Your task to perform on an android device: move an email to a new category in the gmail app Image 0: 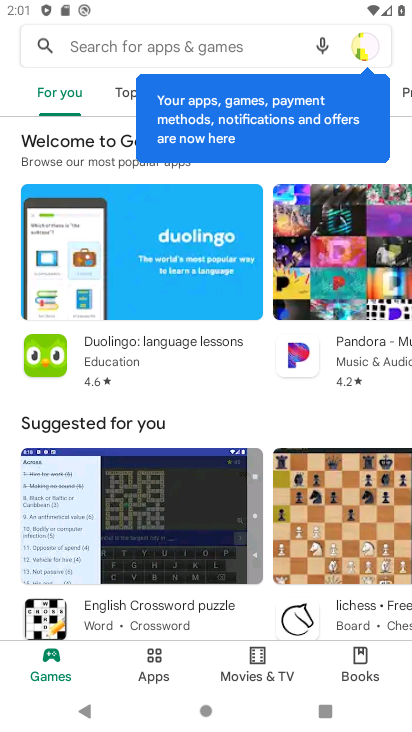
Step 0: press home button
Your task to perform on an android device: move an email to a new category in the gmail app Image 1: 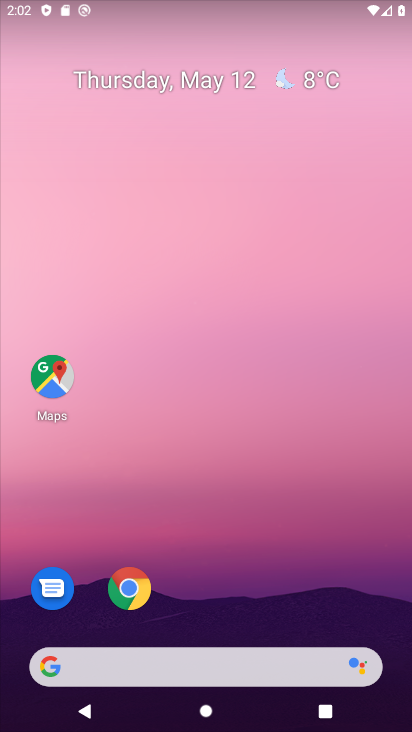
Step 1: drag from (215, 604) to (245, 0)
Your task to perform on an android device: move an email to a new category in the gmail app Image 2: 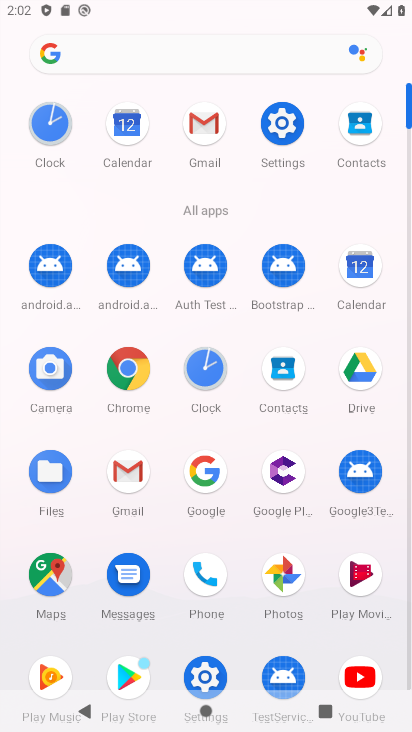
Step 2: click (208, 151)
Your task to perform on an android device: move an email to a new category in the gmail app Image 3: 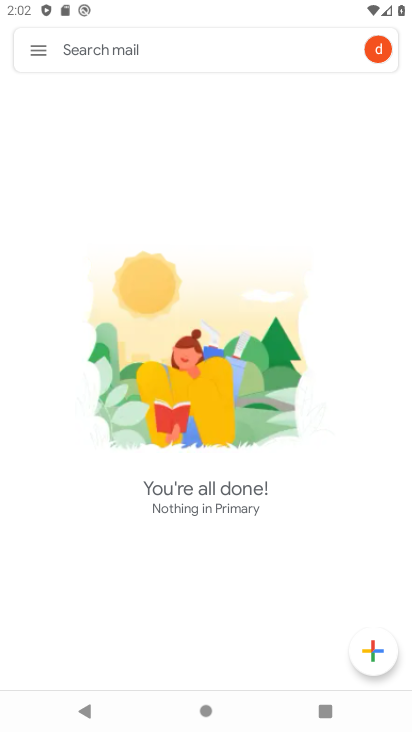
Step 3: click (26, 45)
Your task to perform on an android device: move an email to a new category in the gmail app Image 4: 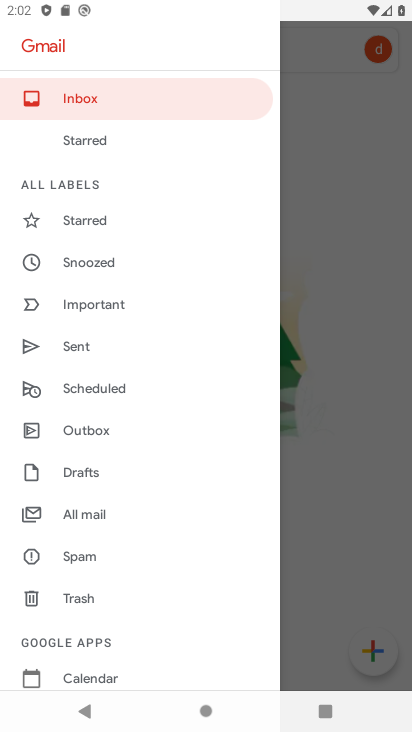
Step 4: click (96, 510)
Your task to perform on an android device: move an email to a new category in the gmail app Image 5: 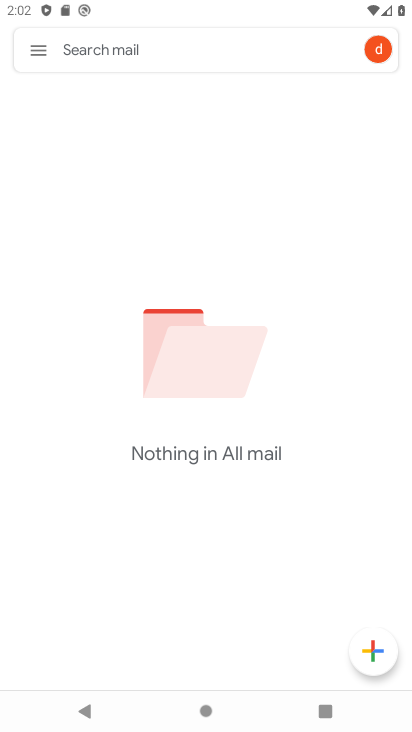
Step 5: task complete